Your task to perform on an android device: open device folders in google photos Image 0: 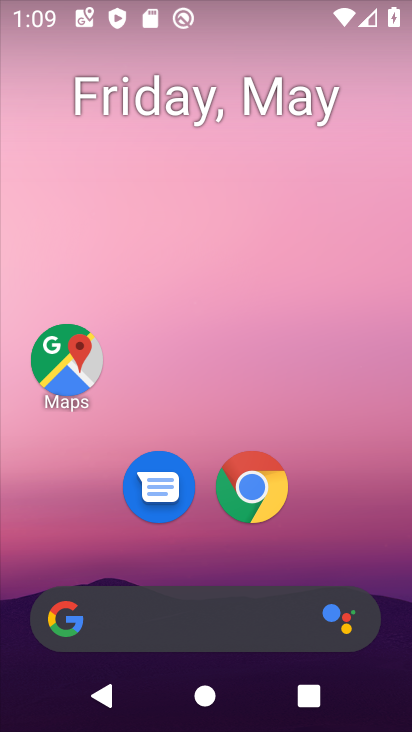
Step 0: drag from (205, 574) to (249, 152)
Your task to perform on an android device: open device folders in google photos Image 1: 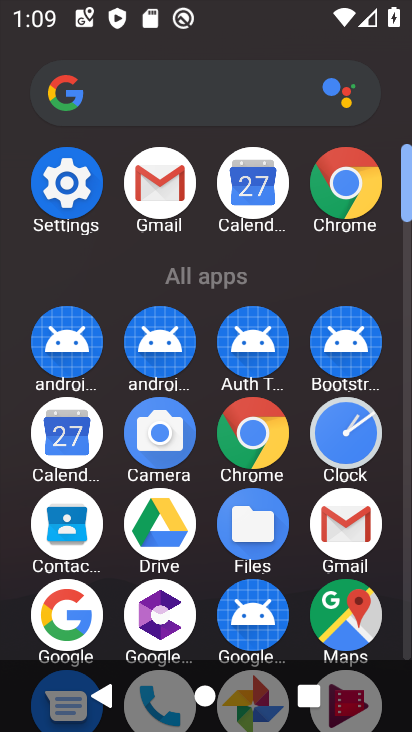
Step 1: drag from (214, 567) to (252, 195)
Your task to perform on an android device: open device folders in google photos Image 2: 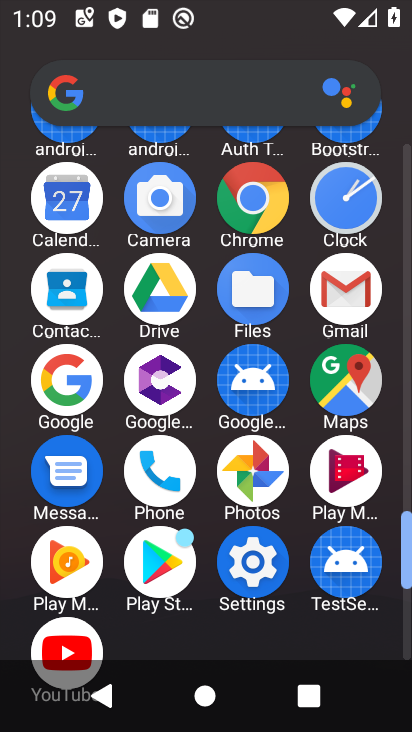
Step 2: click (256, 467)
Your task to perform on an android device: open device folders in google photos Image 3: 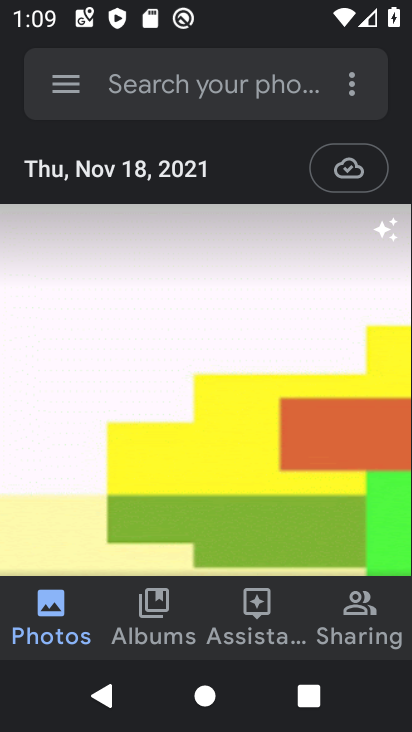
Step 3: click (61, 107)
Your task to perform on an android device: open device folders in google photos Image 4: 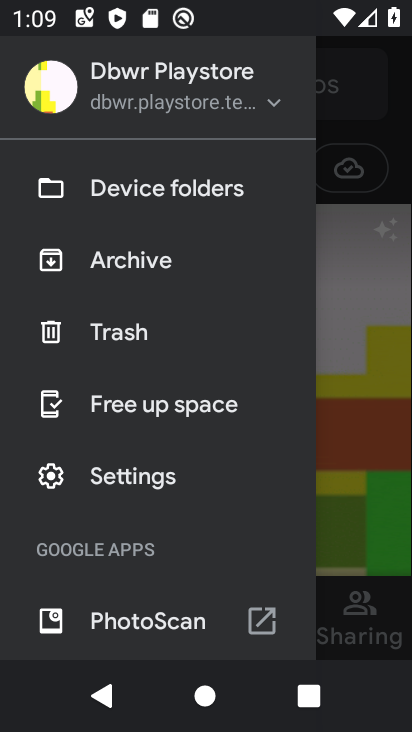
Step 4: click (127, 191)
Your task to perform on an android device: open device folders in google photos Image 5: 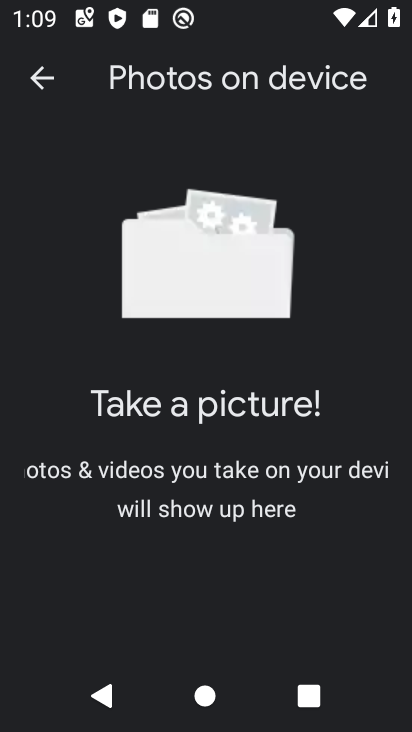
Step 5: task complete